Your task to perform on an android device: Open display settings Image 0: 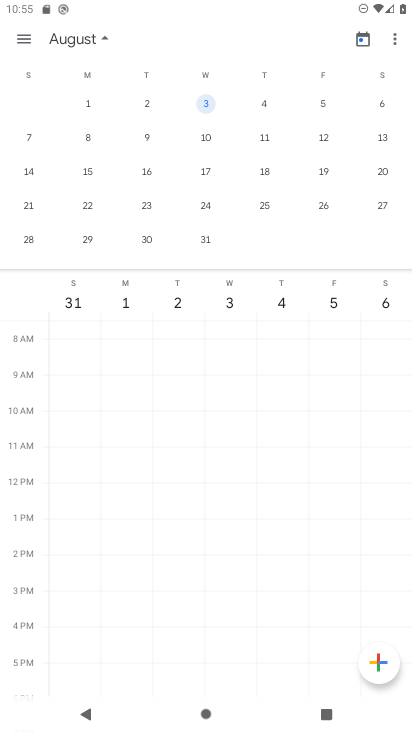
Step 0: press home button
Your task to perform on an android device: Open display settings Image 1: 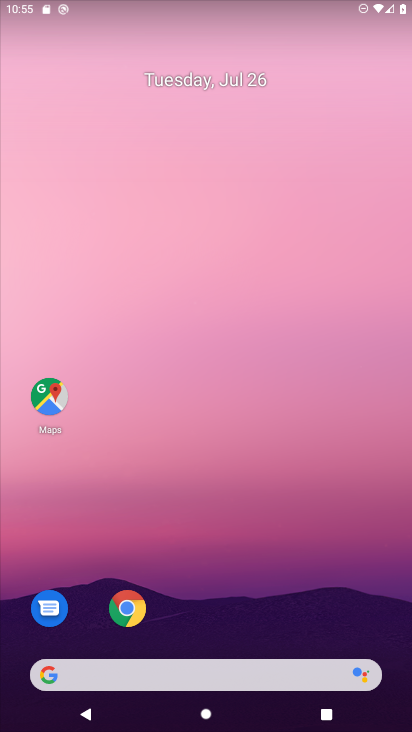
Step 1: drag from (306, 609) to (288, 89)
Your task to perform on an android device: Open display settings Image 2: 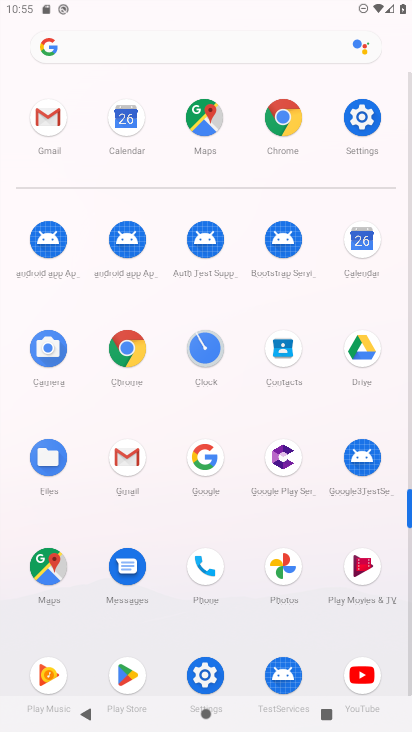
Step 2: click (368, 113)
Your task to perform on an android device: Open display settings Image 3: 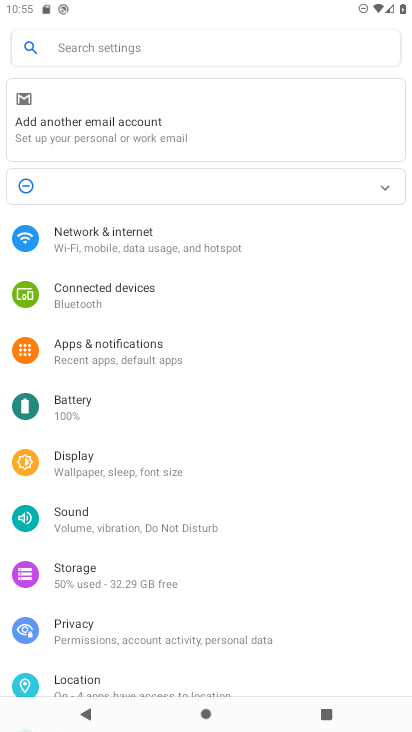
Step 3: click (104, 467)
Your task to perform on an android device: Open display settings Image 4: 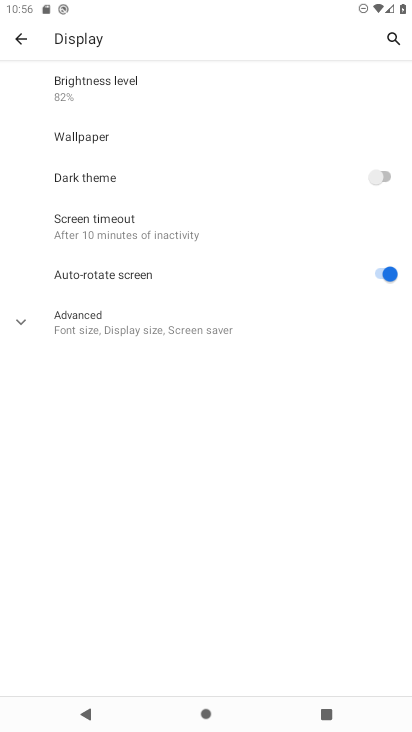
Step 4: task complete